Your task to perform on an android device: change timer sound Image 0: 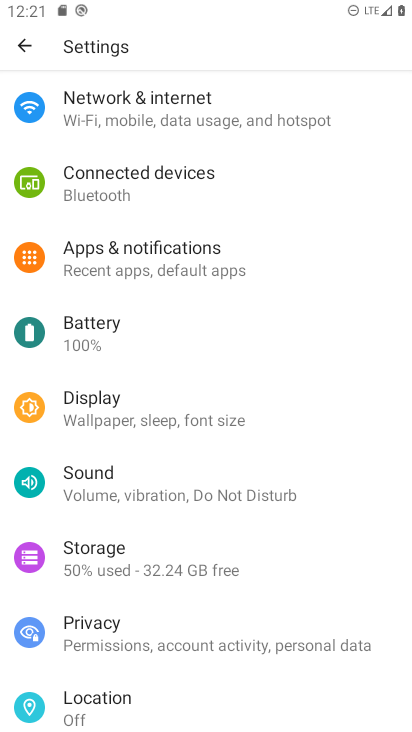
Step 0: press home button
Your task to perform on an android device: change timer sound Image 1: 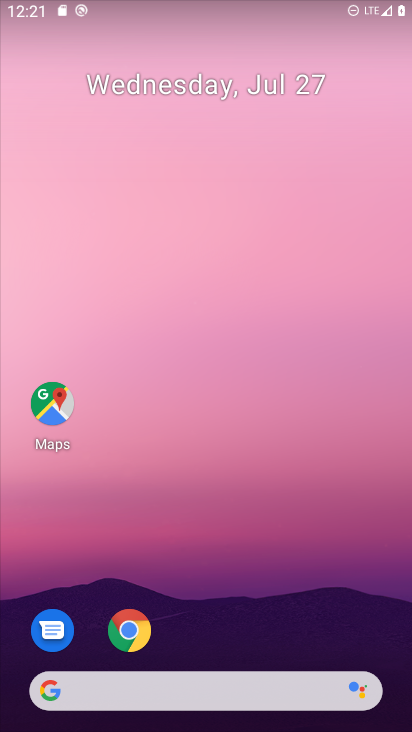
Step 1: drag from (373, 634) to (332, 186)
Your task to perform on an android device: change timer sound Image 2: 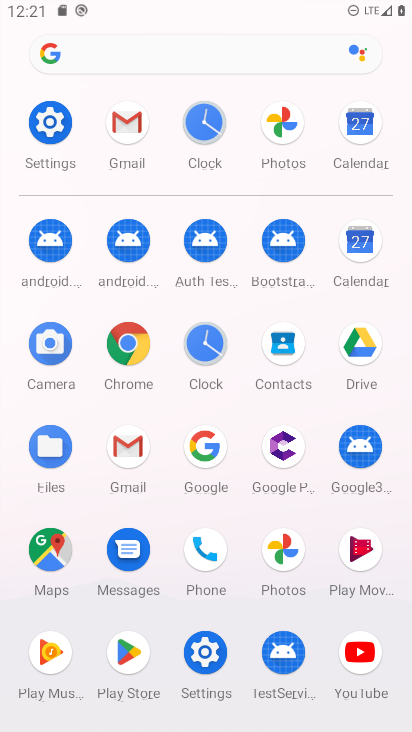
Step 2: click (201, 340)
Your task to perform on an android device: change timer sound Image 3: 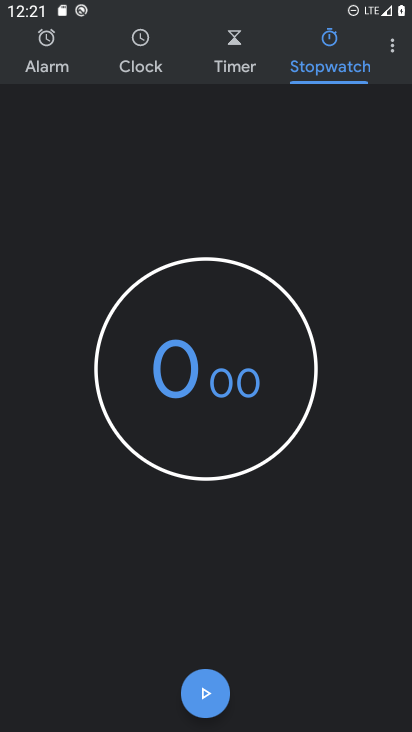
Step 3: click (395, 49)
Your task to perform on an android device: change timer sound Image 4: 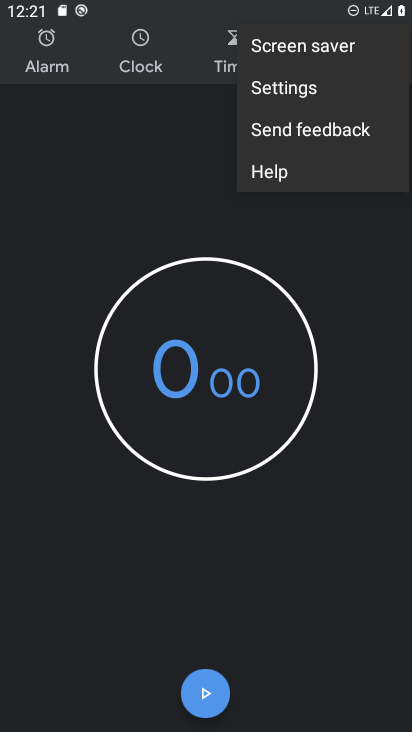
Step 4: click (269, 85)
Your task to perform on an android device: change timer sound Image 5: 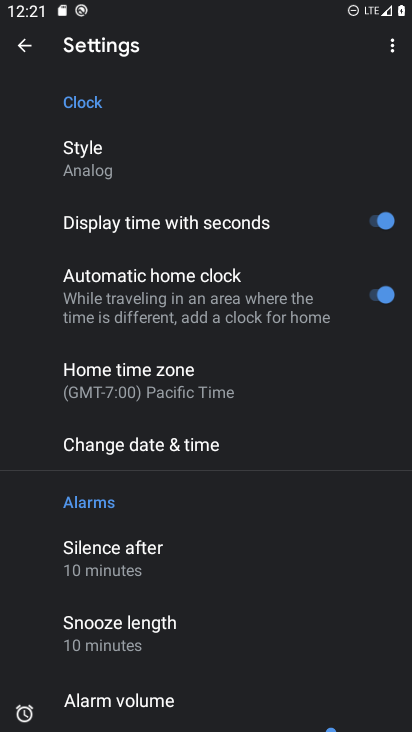
Step 5: drag from (249, 573) to (251, 256)
Your task to perform on an android device: change timer sound Image 6: 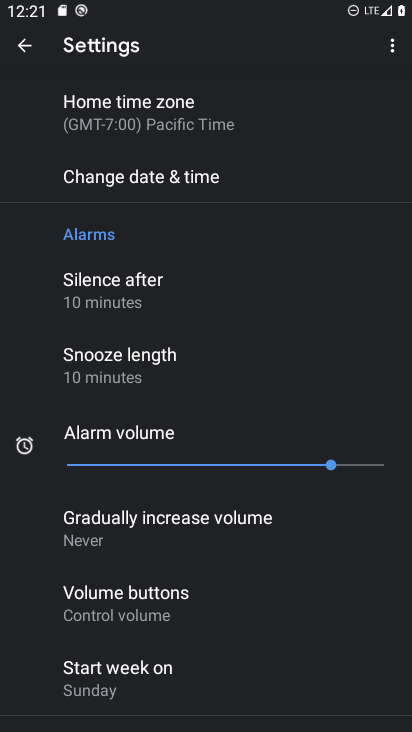
Step 6: drag from (227, 567) to (235, 300)
Your task to perform on an android device: change timer sound Image 7: 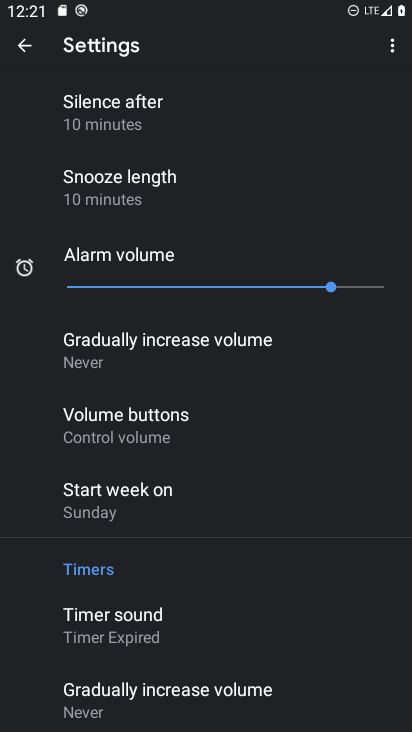
Step 7: click (129, 627)
Your task to perform on an android device: change timer sound Image 8: 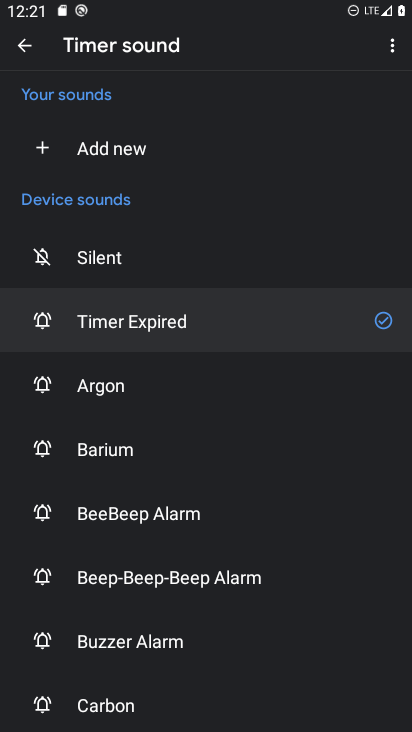
Step 8: drag from (103, 694) to (140, 307)
Your task to perform on an android device: change timer sound Image 9: 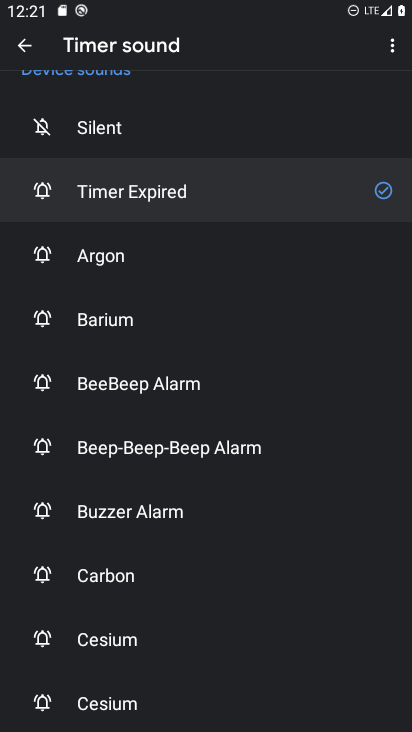
Step 9: click (116, 516)
Your task to perform on an android device: change timer sound Image 10: 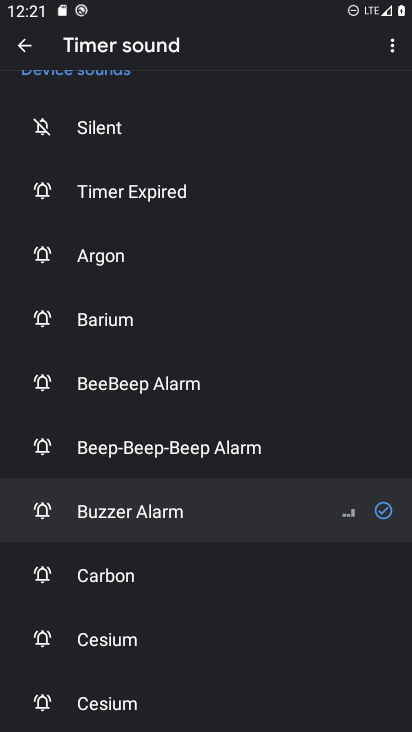
Step 10: task complete